Your task to perform on an android device: Open sound settings Image 0: 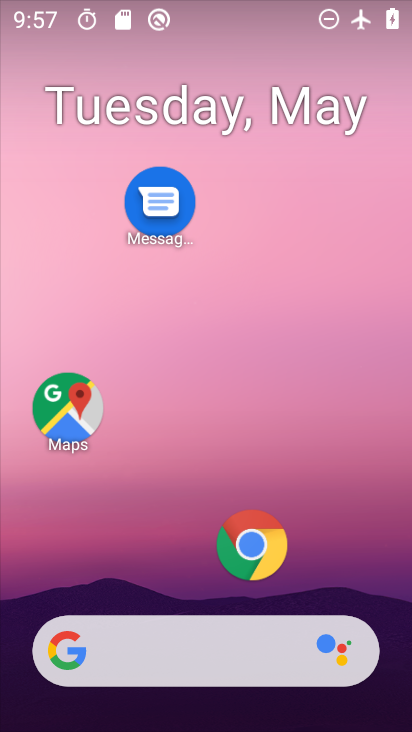
Step 0: drag from (199, 558) to (227, 145)
Your task to perform on an android device: Open sound settings Image 1: 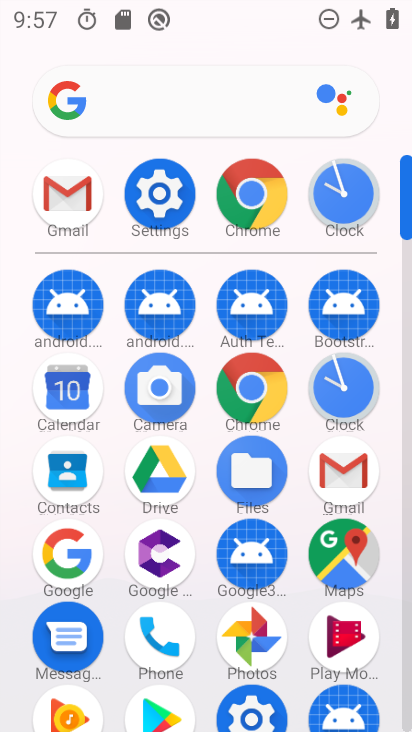
Step 1: click (177, 185)
Your task to perform on an android device: Open sound settings Image 2: 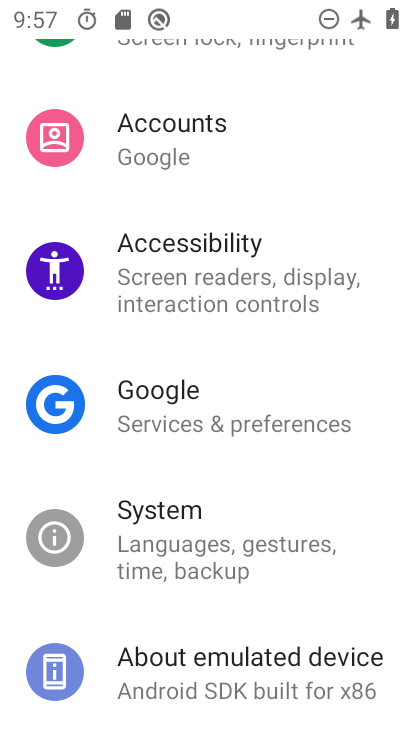
Step 2: drag from (229, 146) to (243, 493)
Your task to perform on an android device: Open sound settings Image 3: 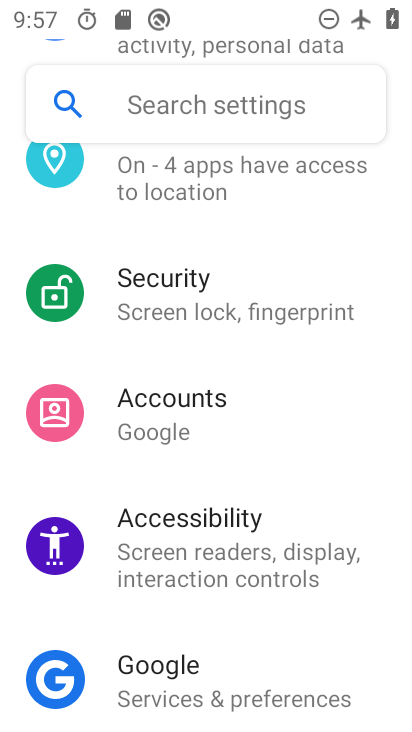
Step 3: drag from (220, 263) to (237, 561)
Your task to perform on an android device: Open sound settings Image 4: 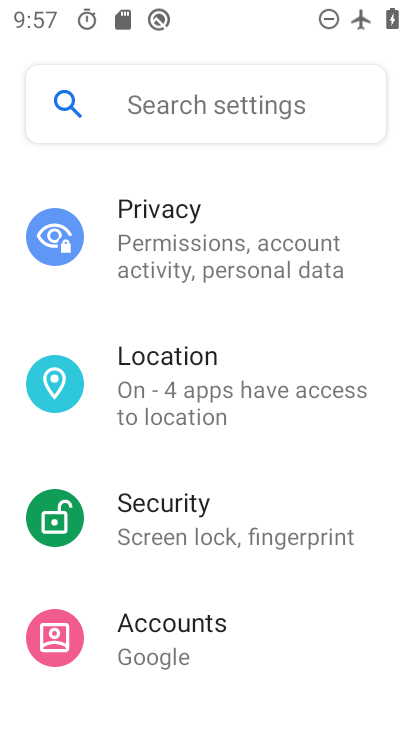
Step 4: drag from (219, 194) to (242, 415)
Your task to perform on an android device: Open sound settings Image 5: 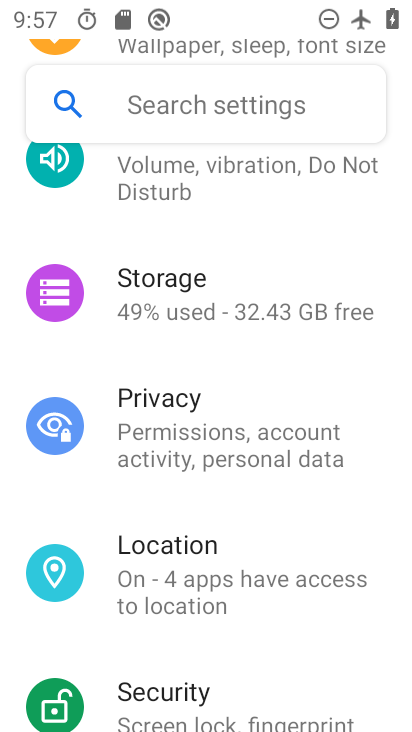
Step 5: drag from (240, 267) to (244, 539)
Your task to perform on an android device: Open sound settings Image 6: 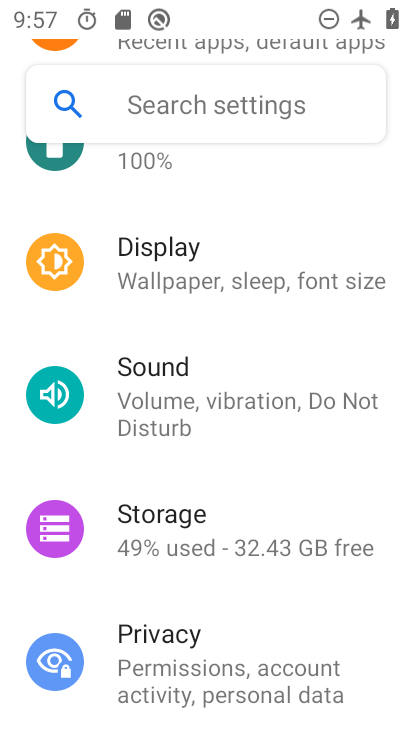
Step 6: click (204, 415)
Your task to perform on an android device: Open sound settings Image 7: 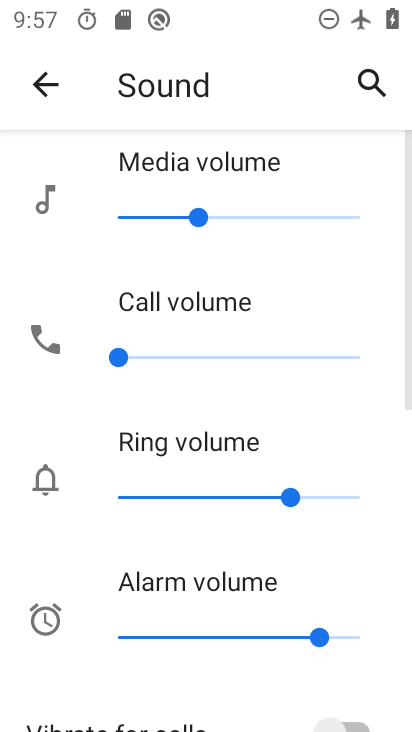
Step 7: task complete